Your task to perform on an android device: uninstall "Google Maps" Image 0: 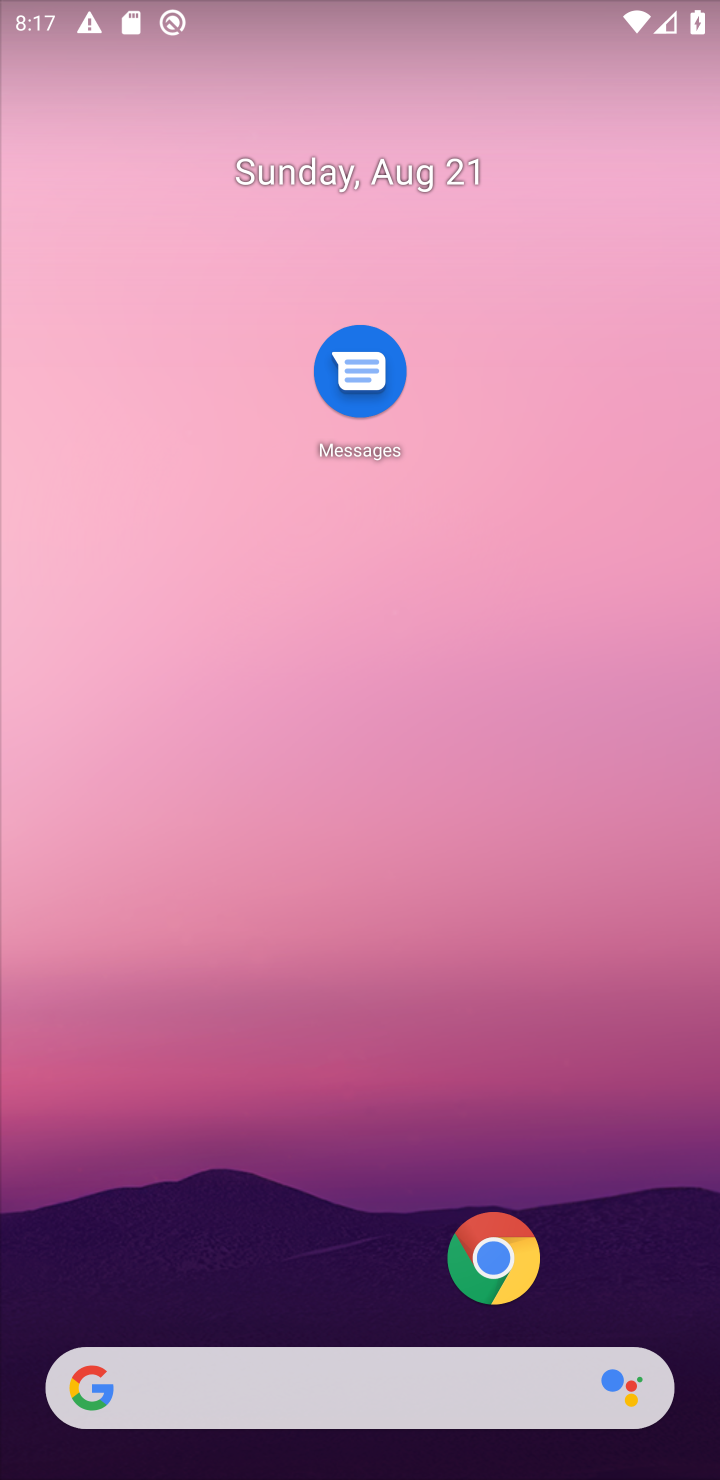
Step 0: drag from (300, 1233) to (459, 0)
Your task to perform on an android device: uninstall "Google Maps" Image 1: 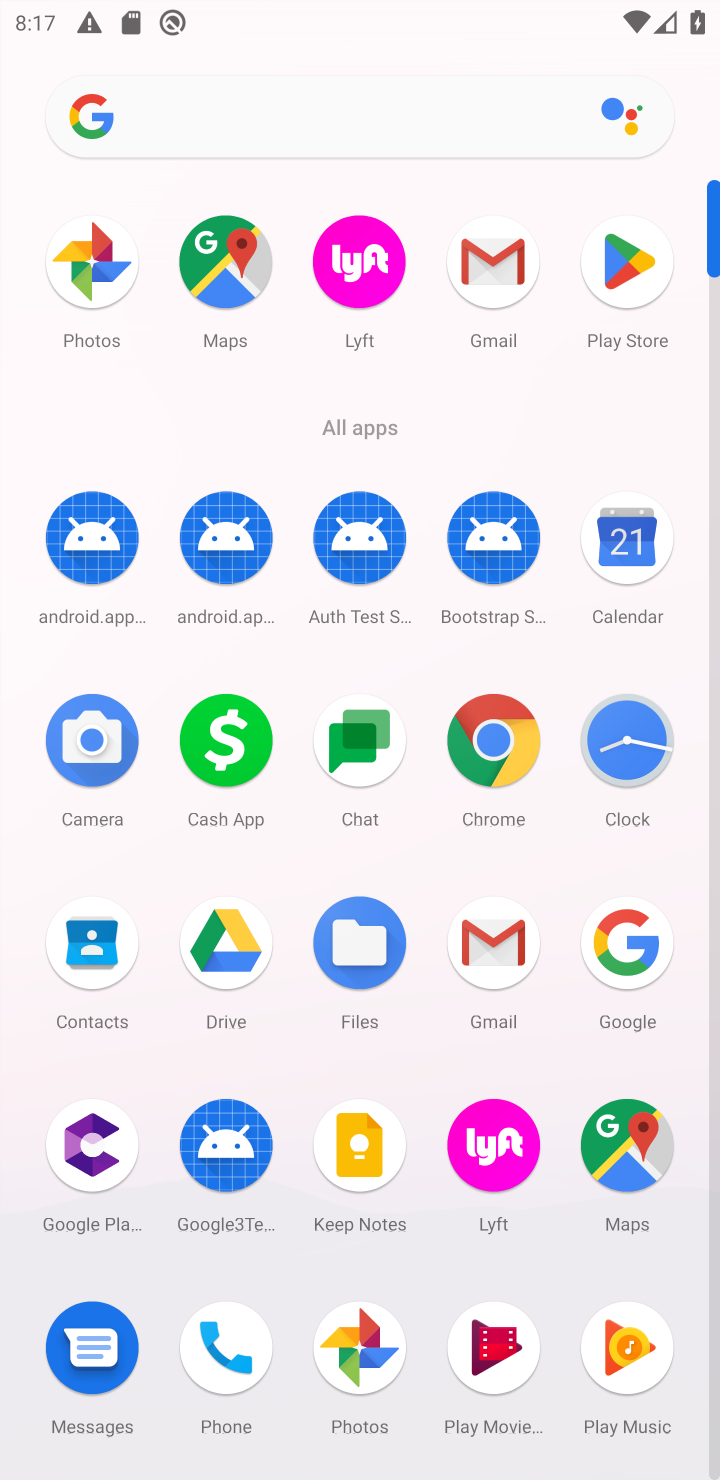
Step 1: click (658, 270)
Your task to perform on an android device: uninstall "Google Maps" Image 2: 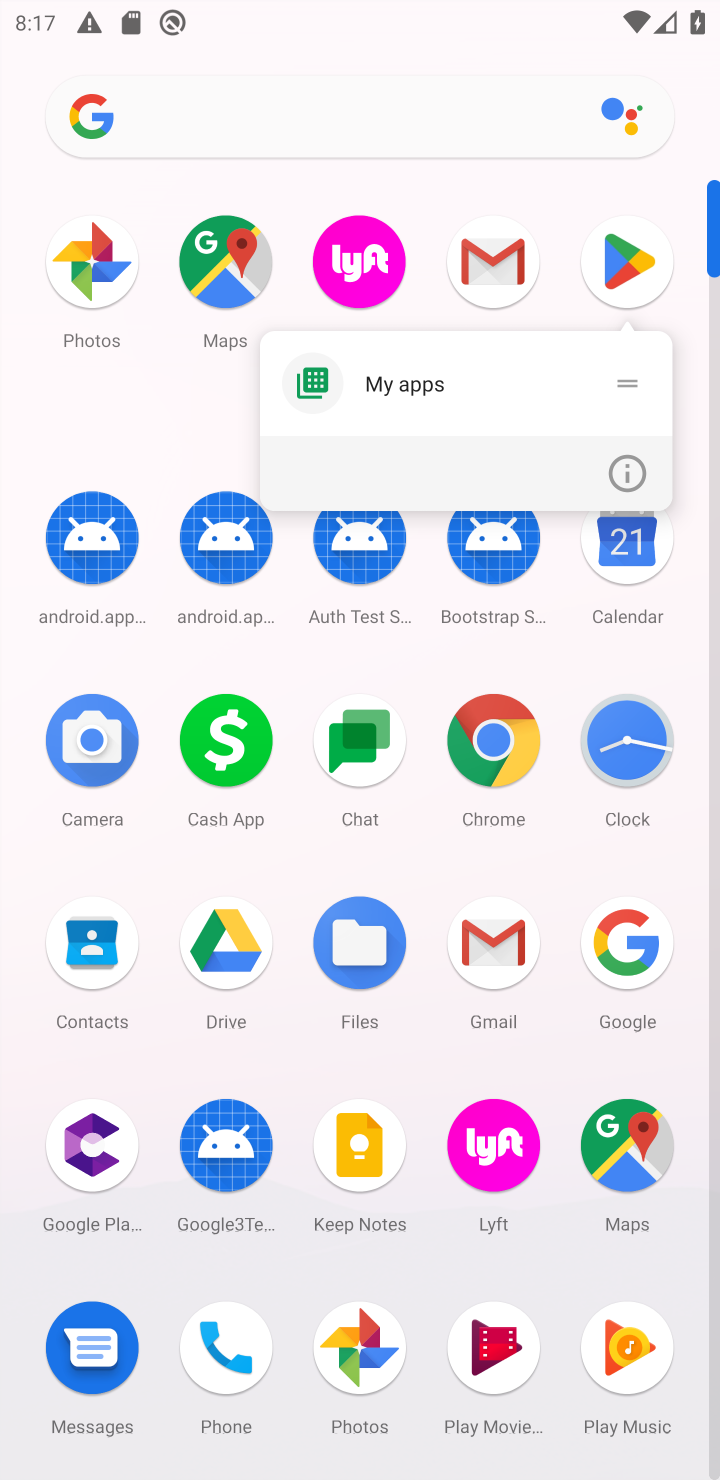
Step 2: click (658, 270)
Your task to perform on an android device: uninstall "Google Maps" Image 3: 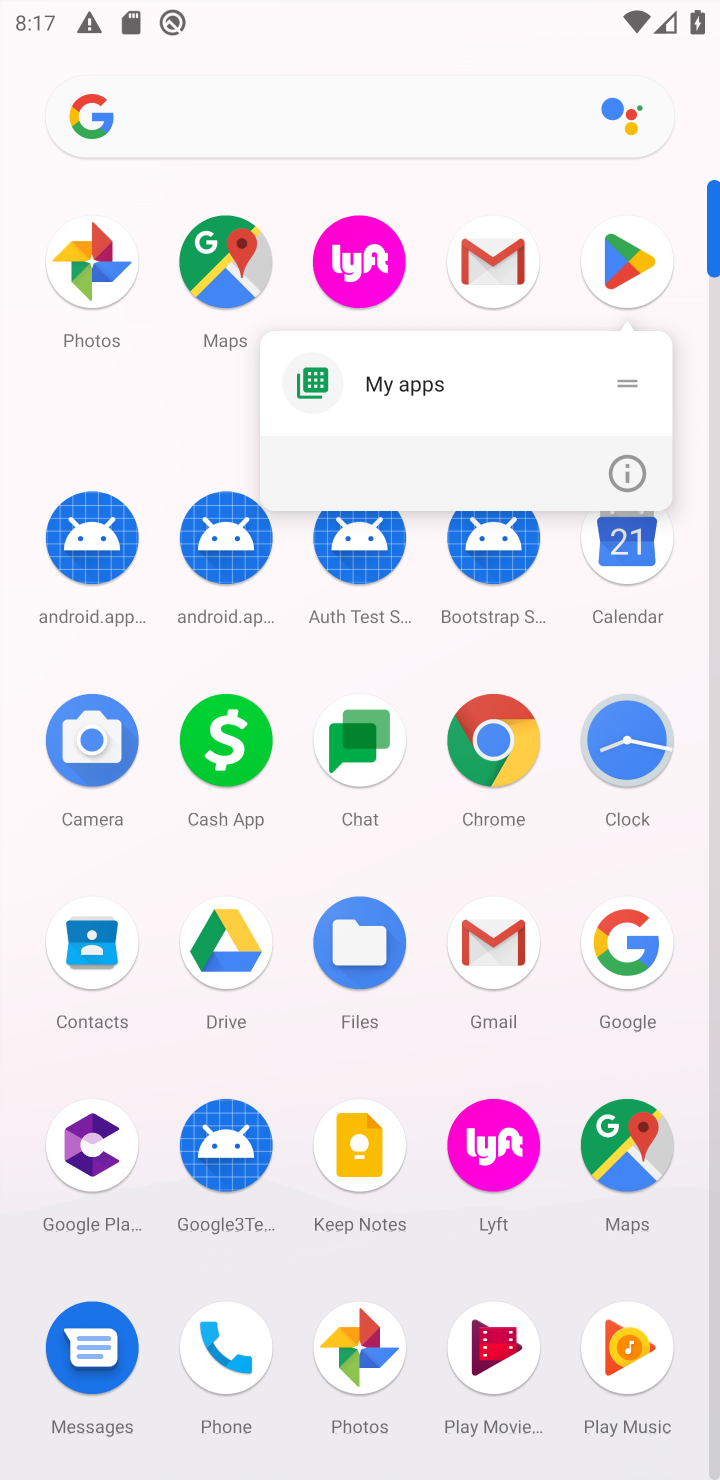
Step 3: click (631, 281)
Your task to perform on an android device: uninstall "Google Maps" Image 4: 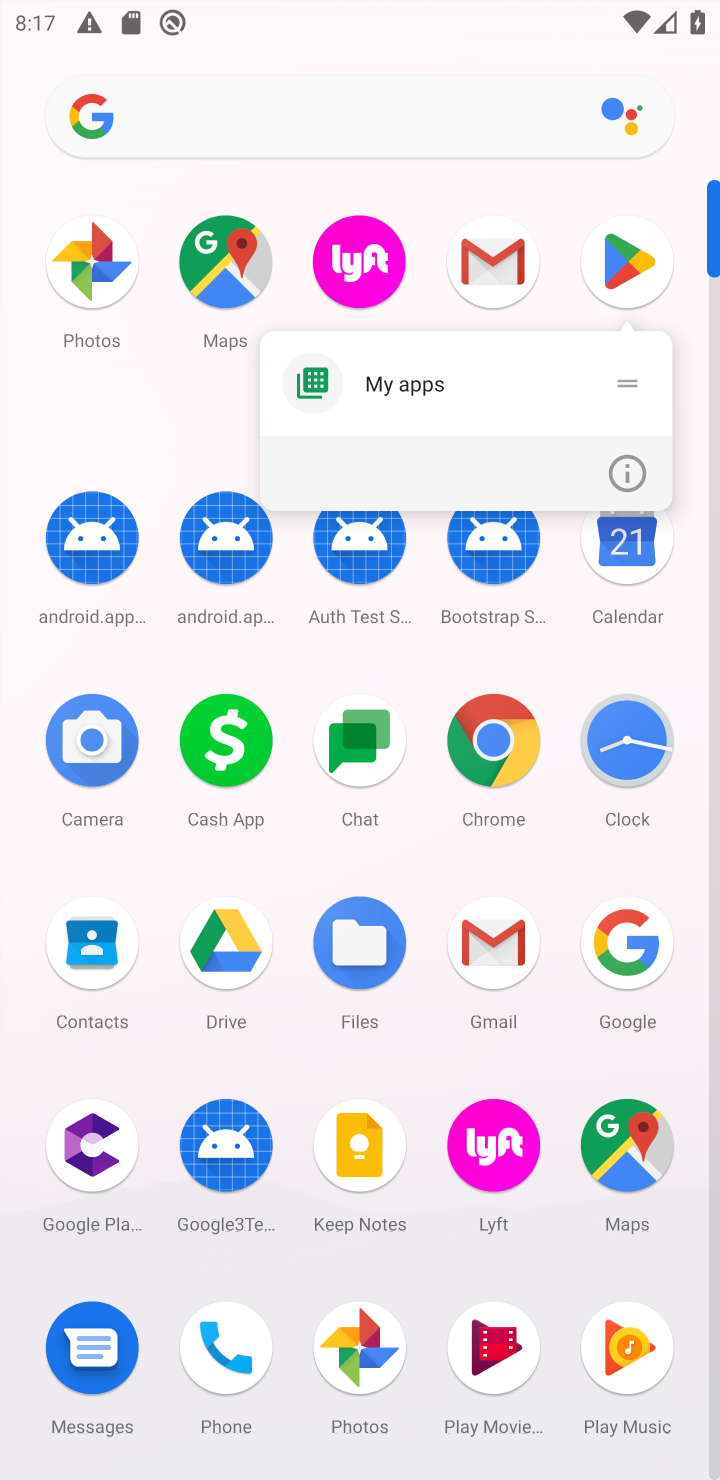
Step 4: click (628, 270)
Your task to perform on an android device: uninstall "Google Maps" Image 5: 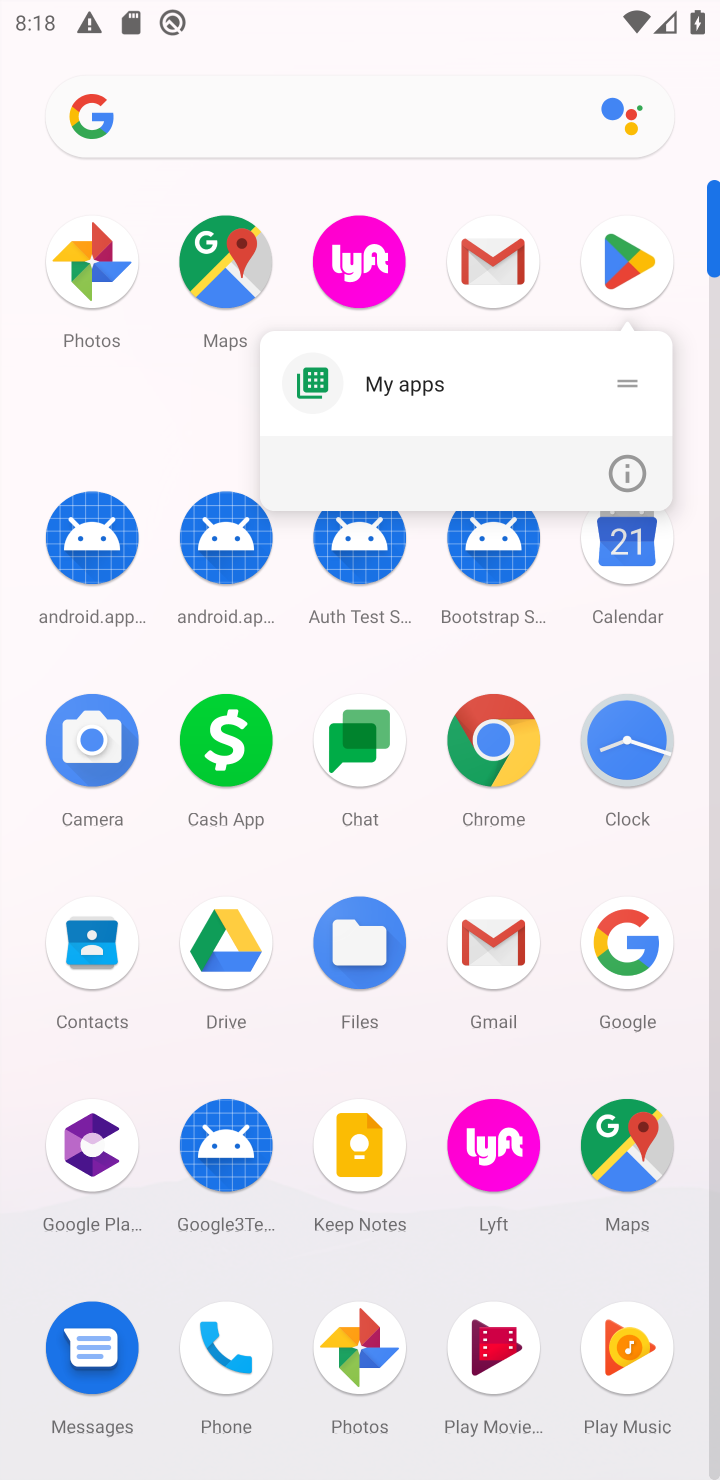
Step 5: click (628, 270)
Your task to perform on an android device: uninstall "Google Maps" Image 6: 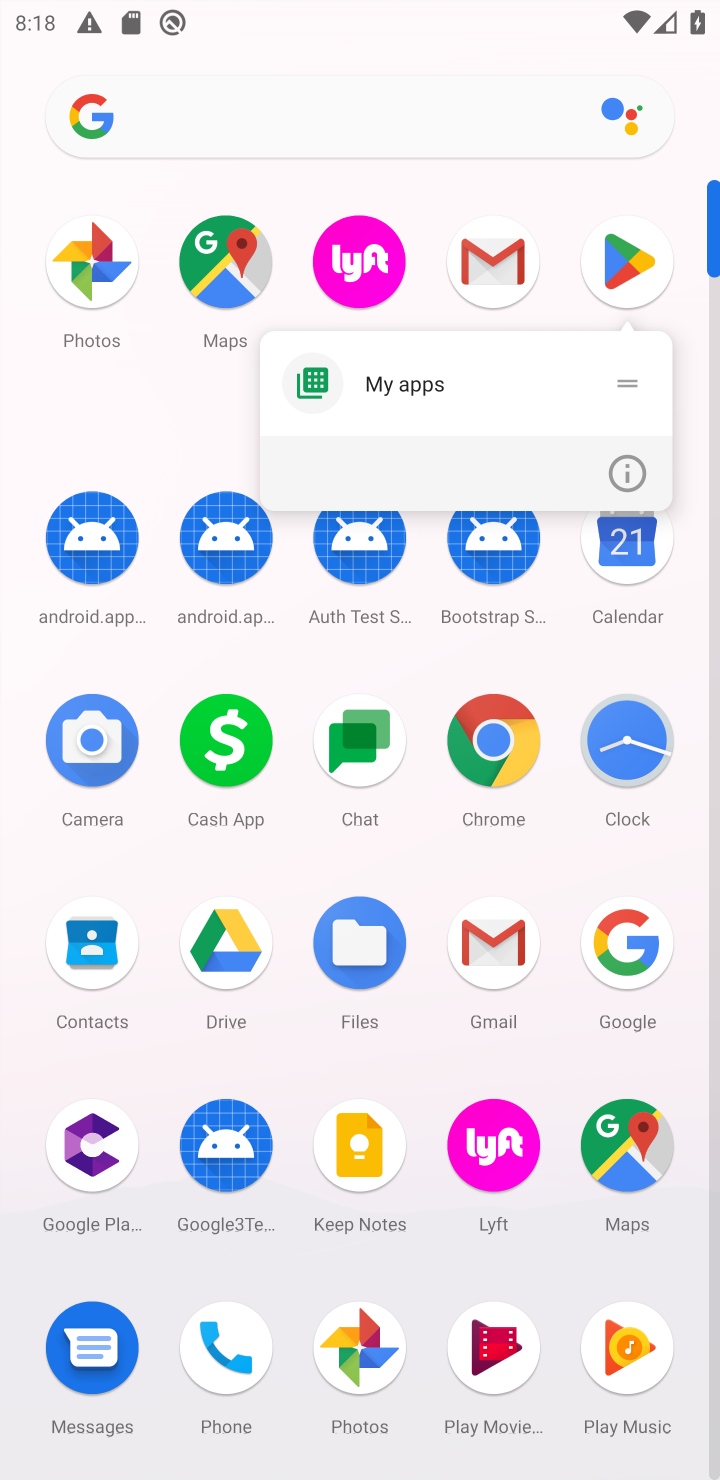
Step 6: click (628, 270)
Your task to perform on an android device: uninstall "Google Maps" Image 7: 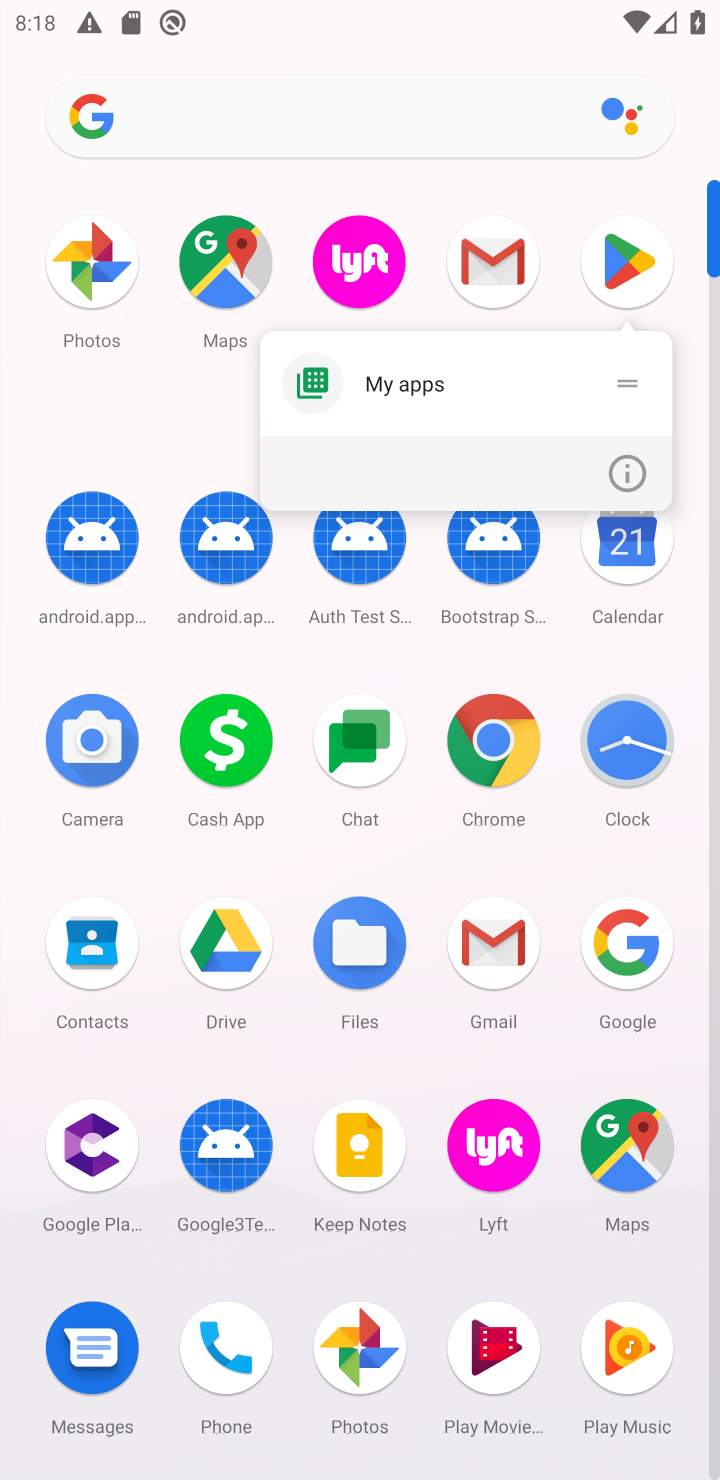
Step 7: click (628, 270)
Your task to perform on an android device: uninstall "Google Maps" Image 8: 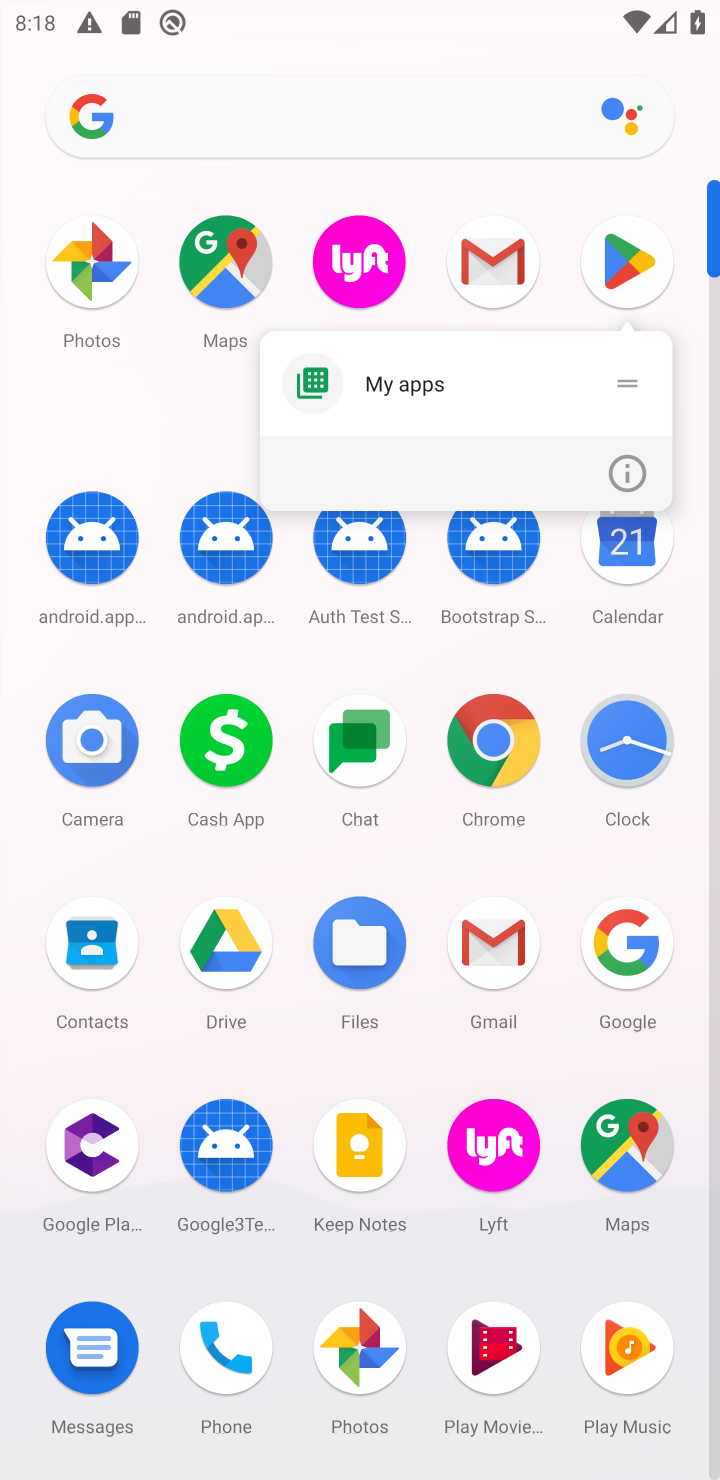
Step 8: click (628, 270)
Your task to perform on an android device: uninstall "Google Maps" Image 9: 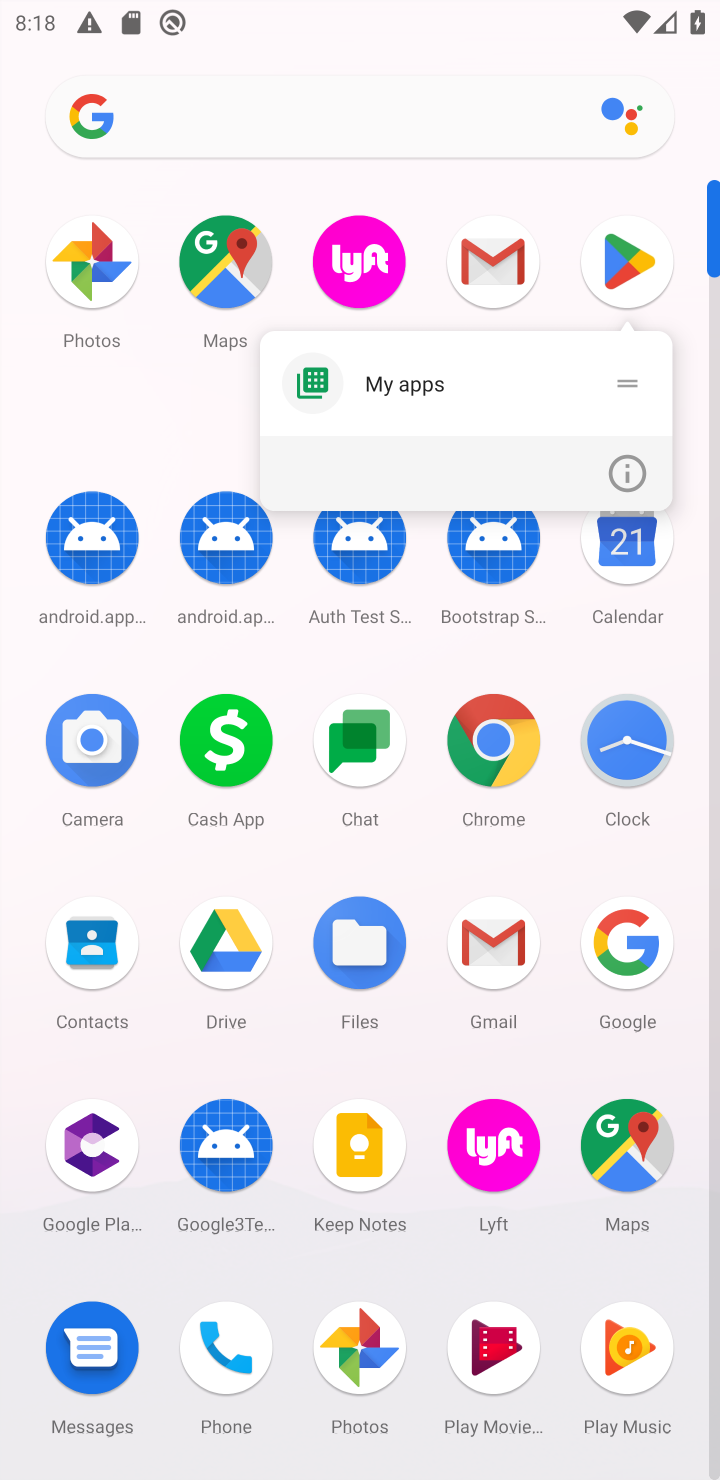
Step 9: click (628, 270)
Your task to perform on an android device: uninstall "Google Maps" Image 10: 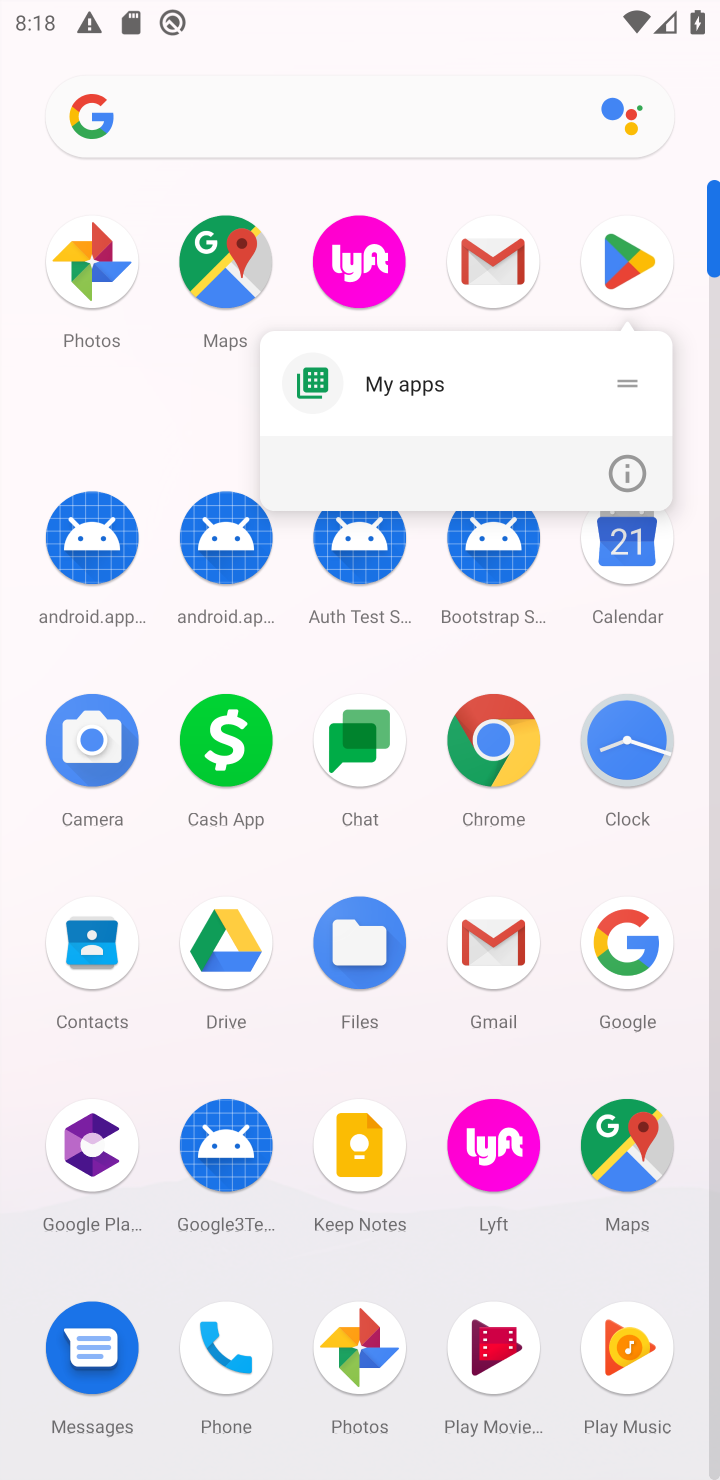
Step 10: click (628, 270)
Your task to perform on an android device: uninstall "Google Maps" Image 11: 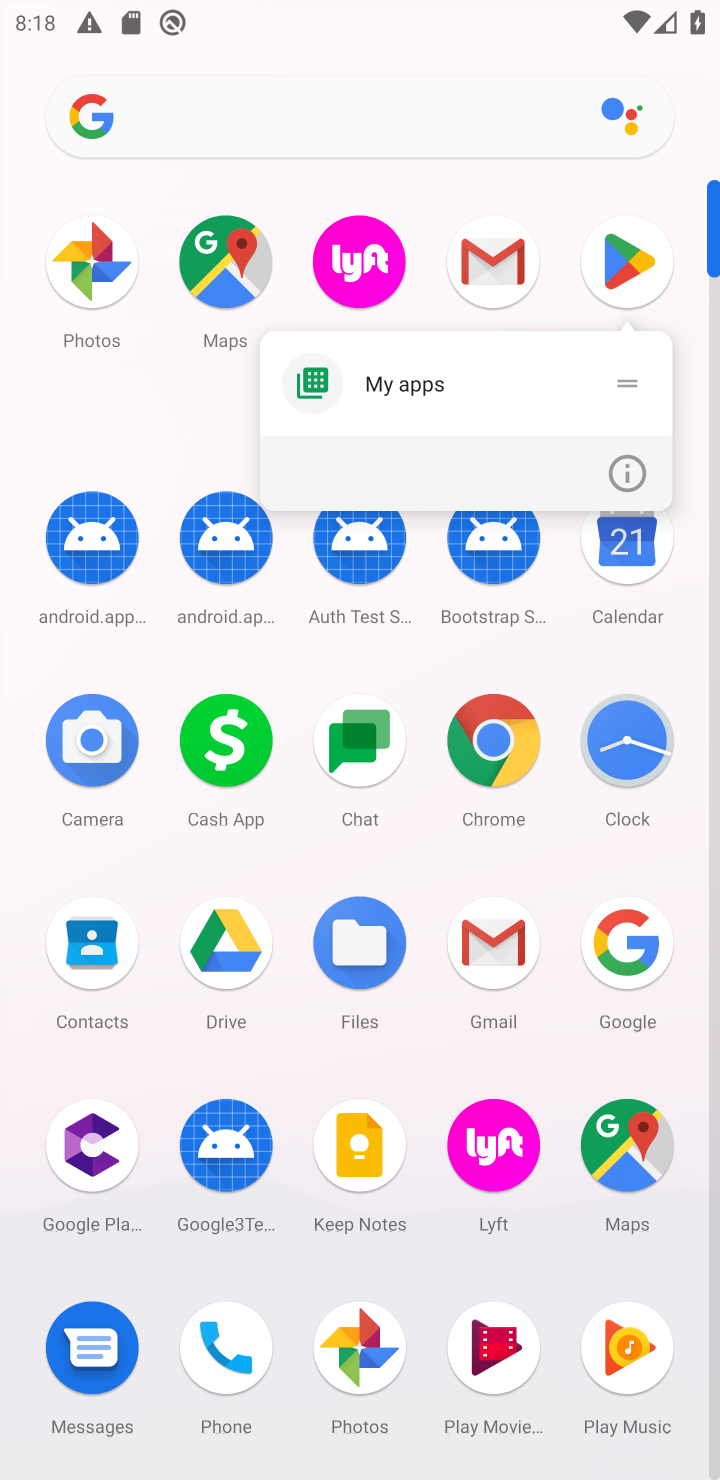
Step 11: click (628, 270)
Your task to perform on an android device: uninstall "Google Maps" Image 12: 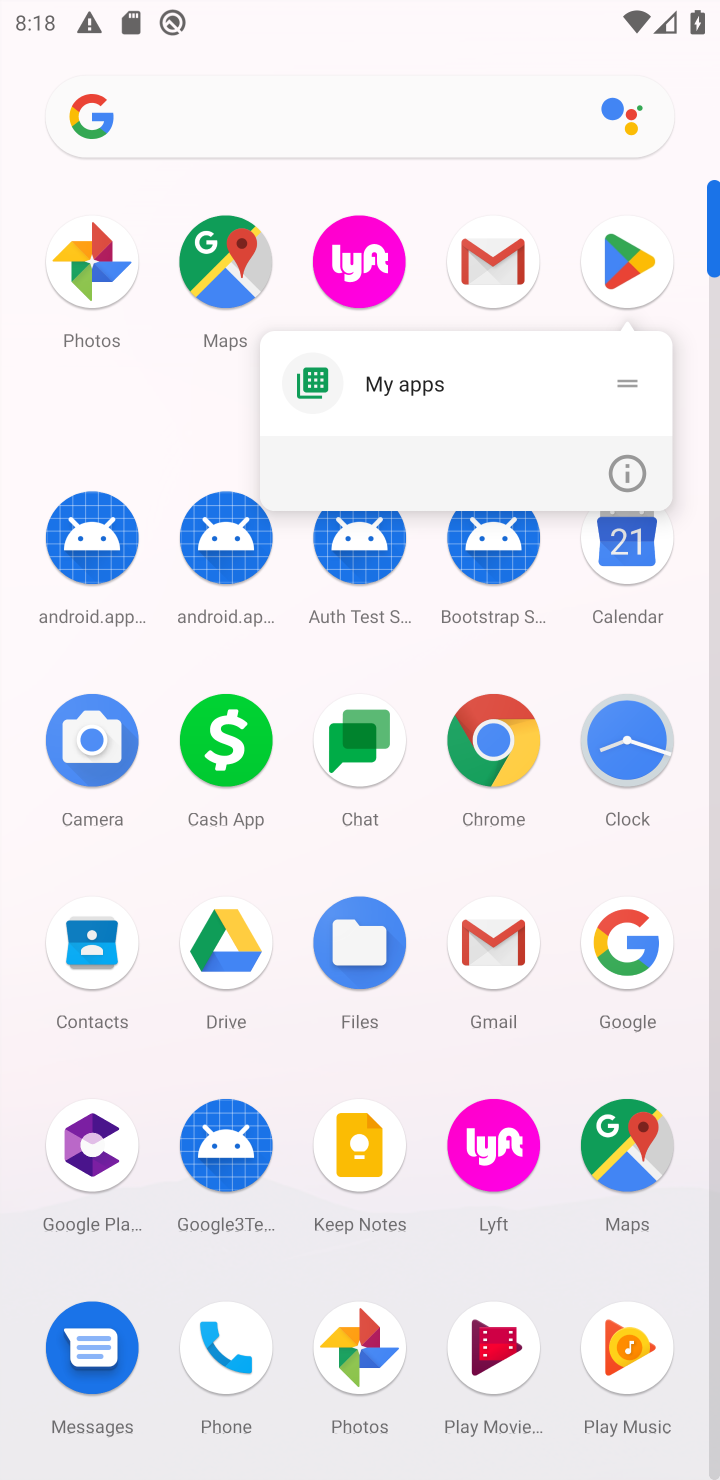
Step 12: click (628, 270)
Your task to perform on an android device: uninstall "Google Maps" Image 13: 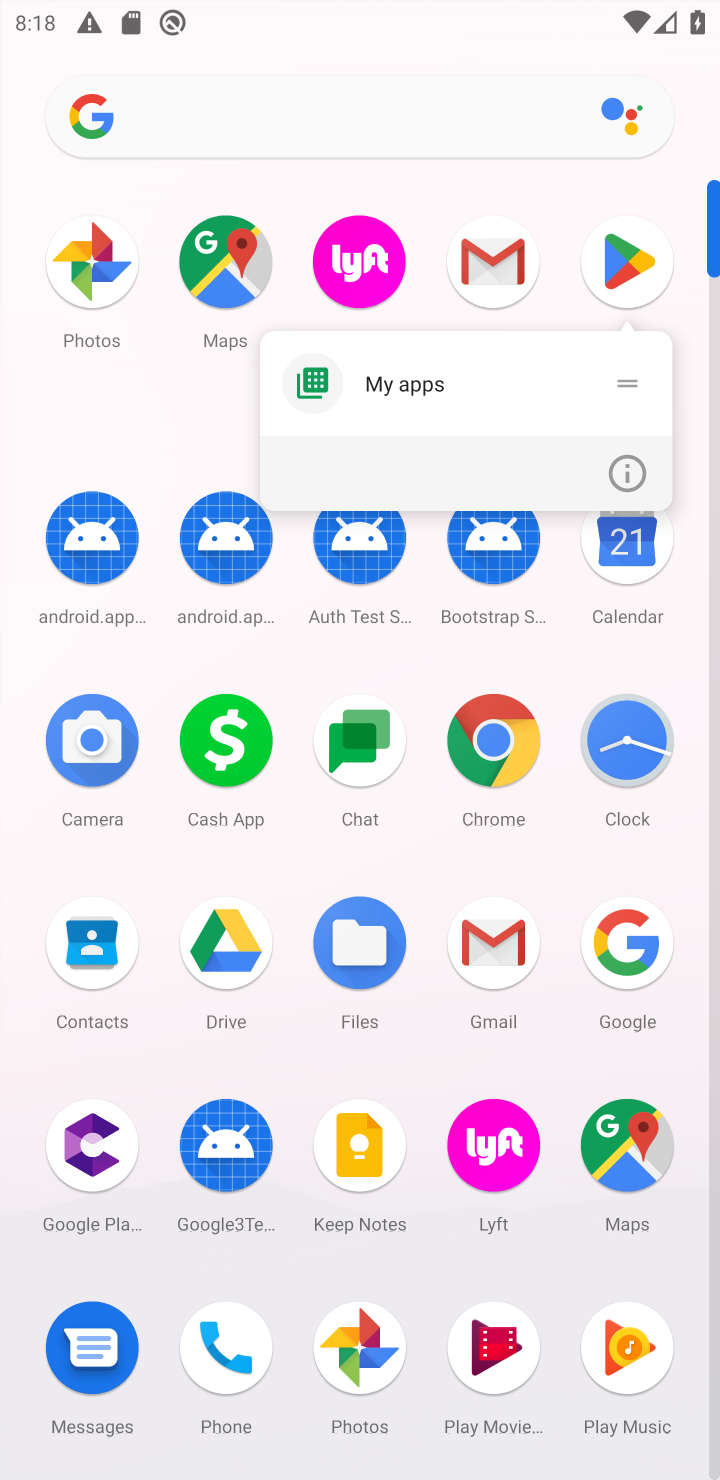
Step 13: click (628, 270)
Your task to perform on an android device: uninstall "Google Maps" Image 14: 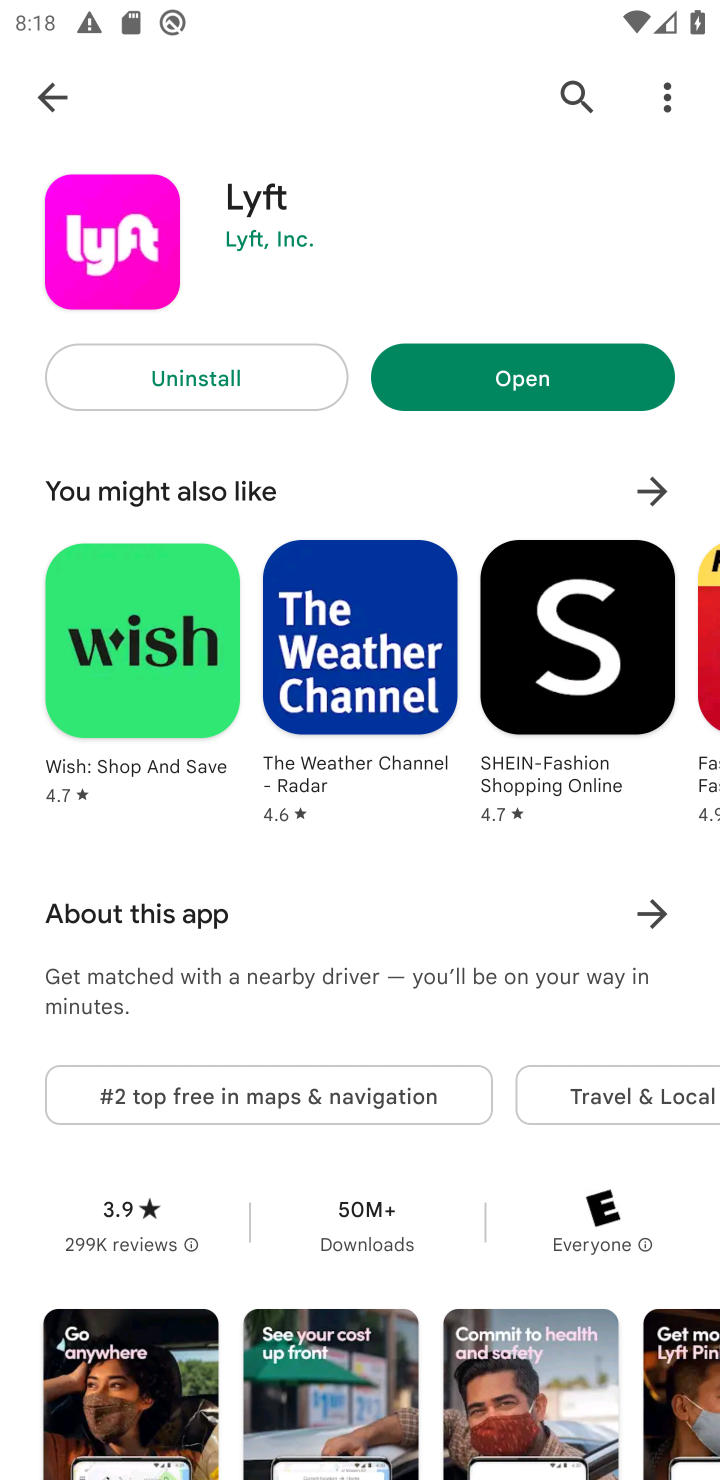
Step 14: press back button
Your task to perform on an android device: uninstall "Google Maps" Image 15: 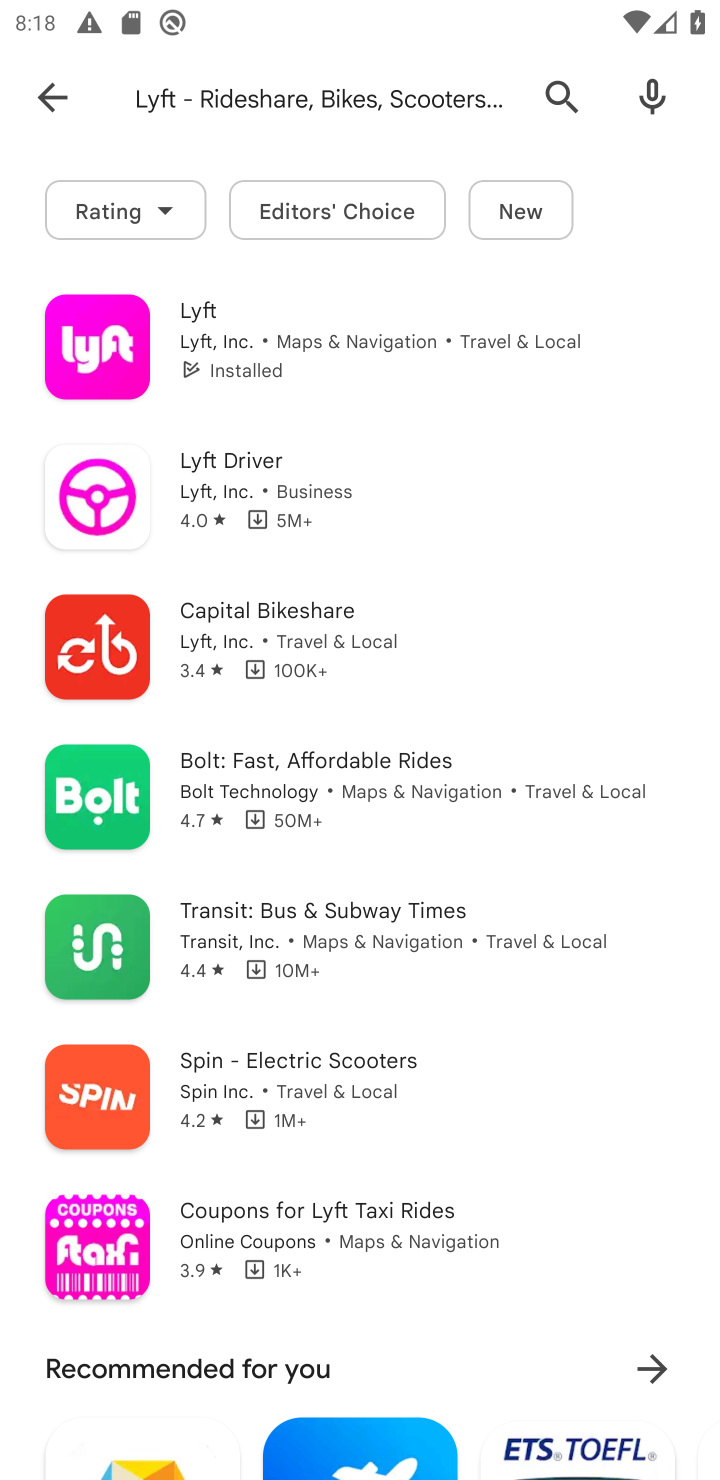
Step 15: press back button
Your task to perform on an android device: uninstall "Google Maps" Image 16: 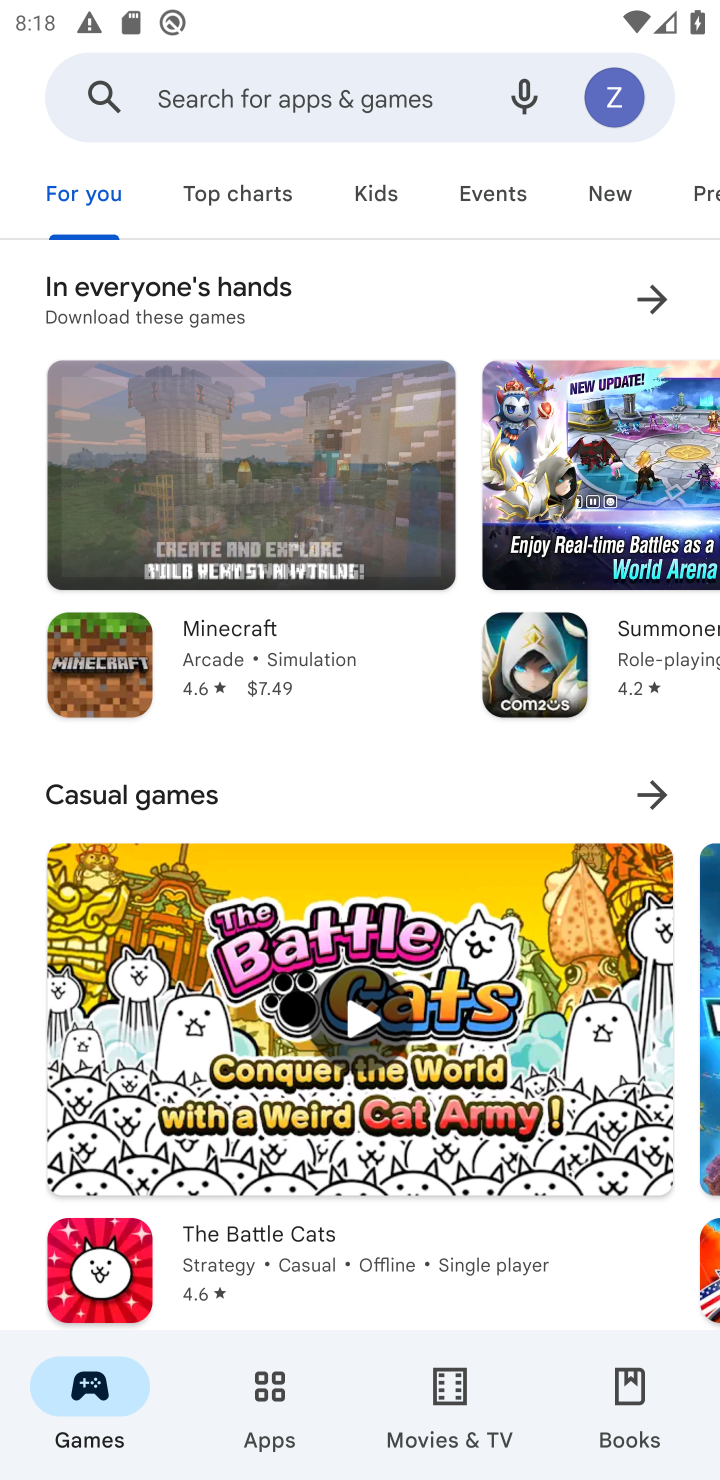
Step 16: click (189, 124)
Your task to perform on an android device: uninstall "Google Maps" Image 17: 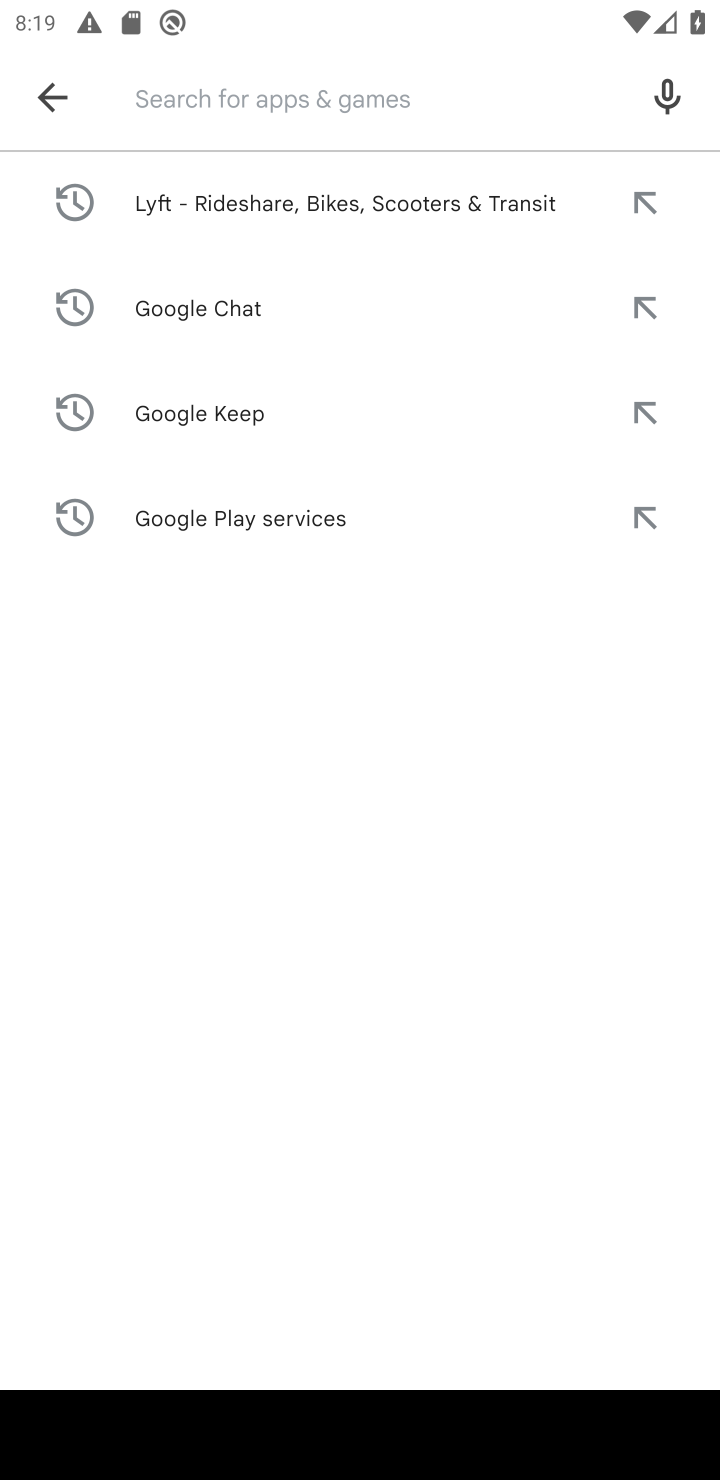
Step 17: type "Google Maps""
Your task to perform on an android device: uninstall "Google Maps" Image 18: 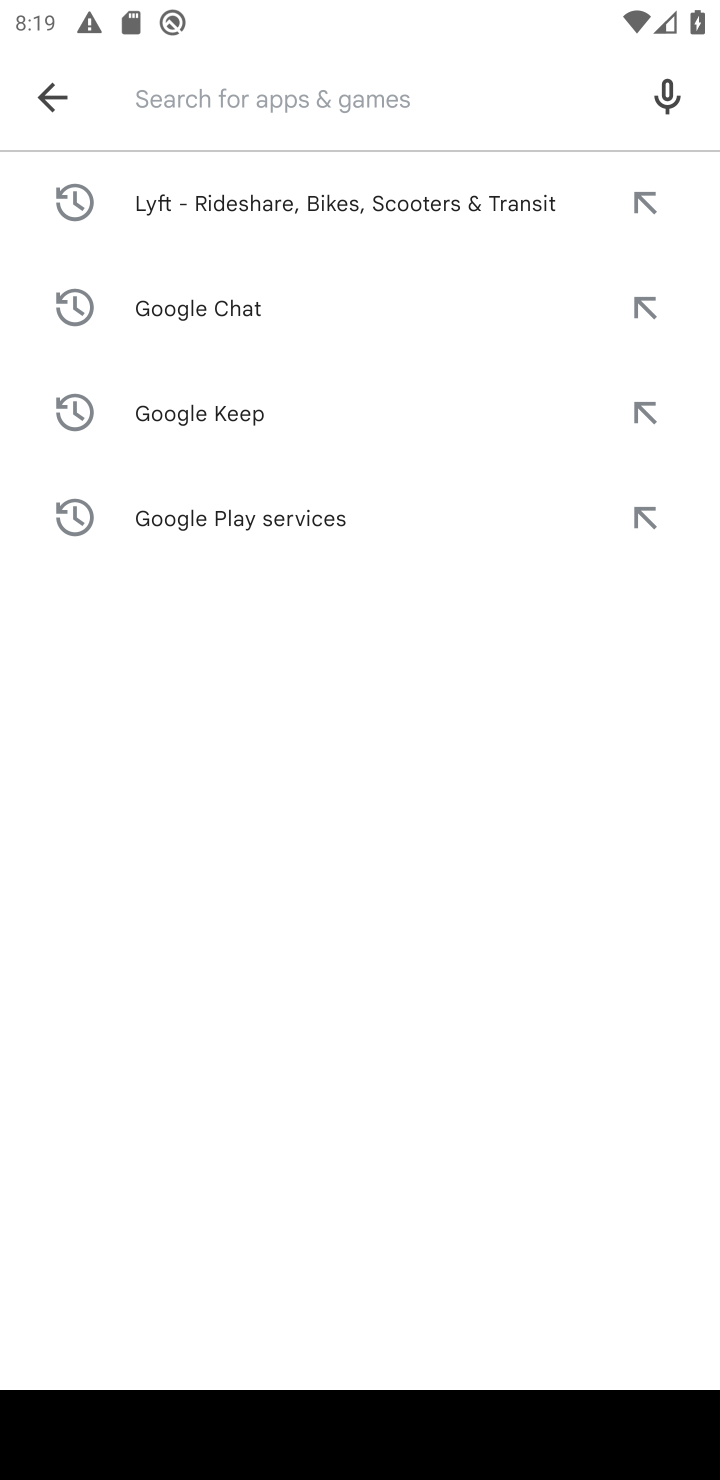
Step 18: press enter
Your task to perform on an android device: uninstall "Google Maps" Image 19: 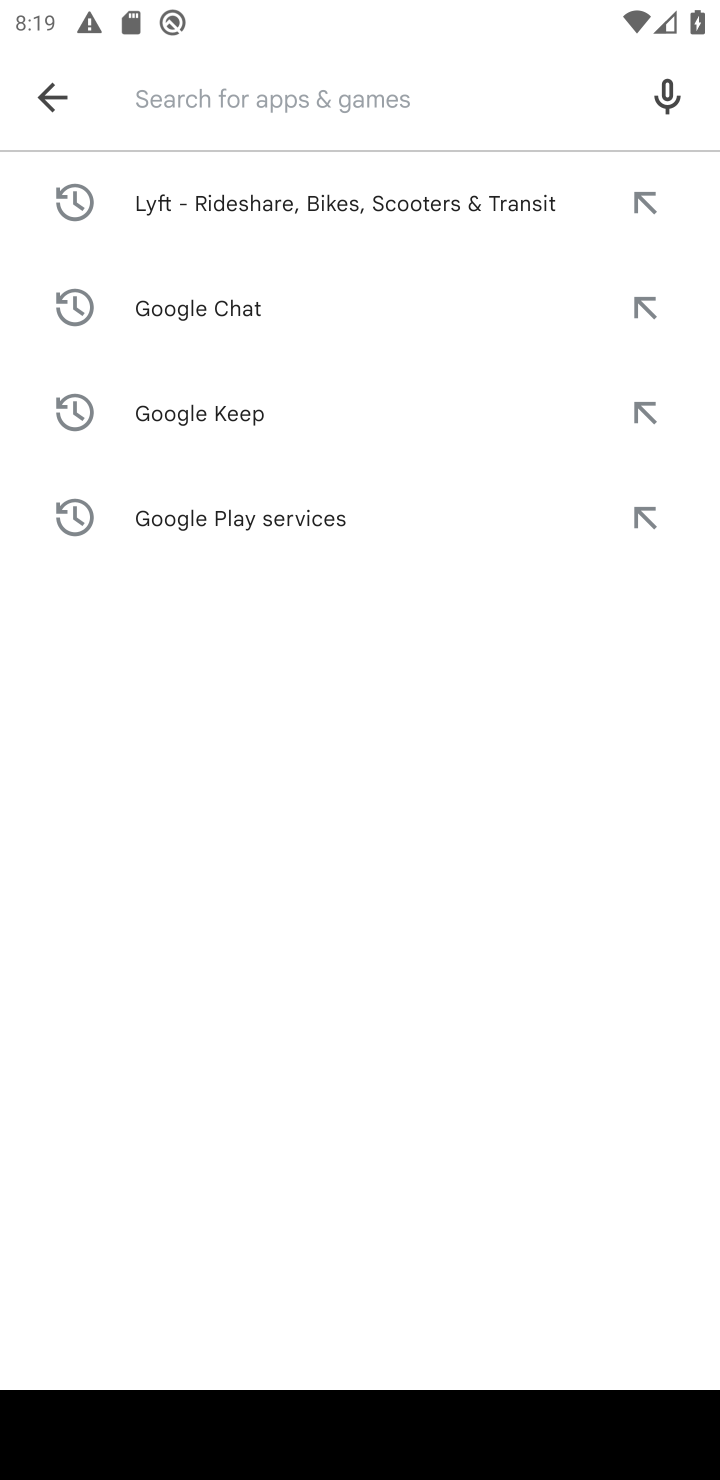
Step 19: type "Google Maps"
Your task to perform on an android device: uninstall "Google Maps" Image 20: 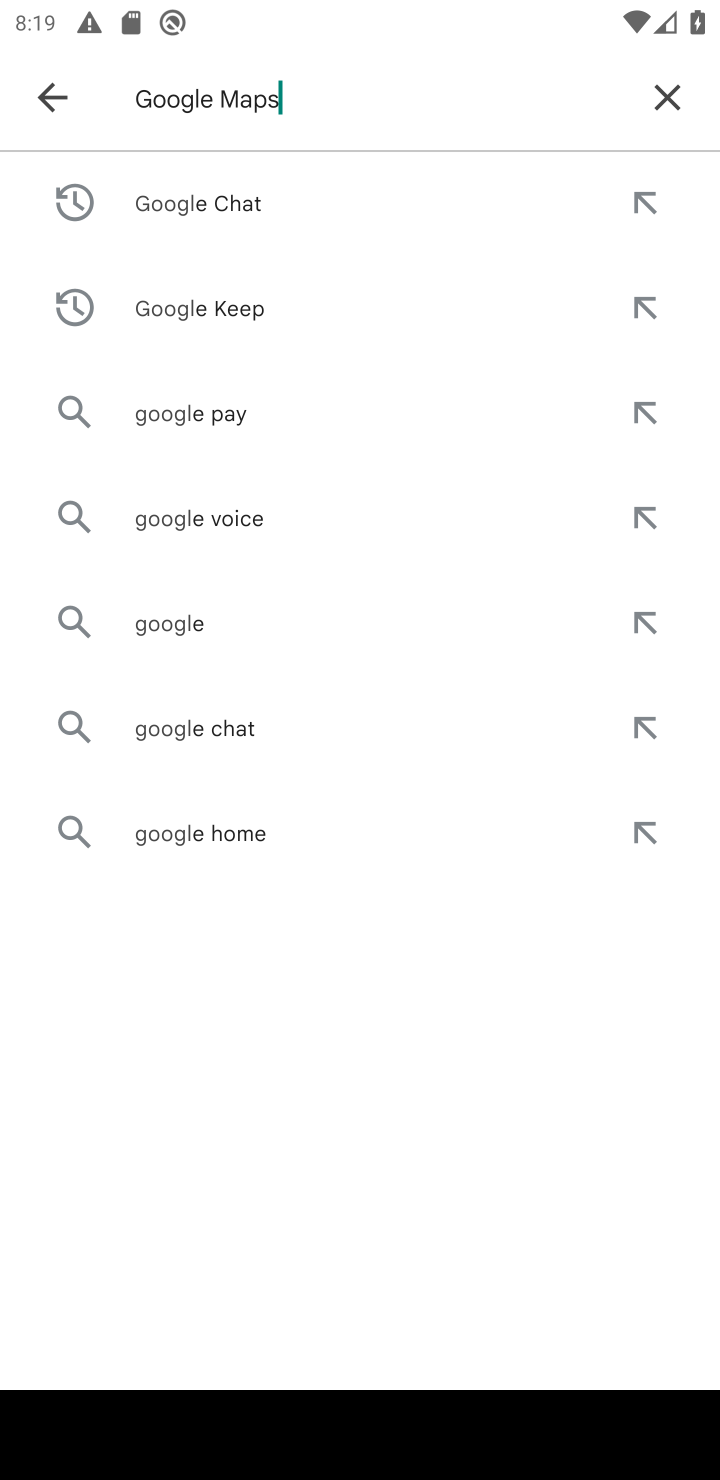
Step 20: press enter
Your task to perform on an android device: uninstall "Google Maps" Image 21: 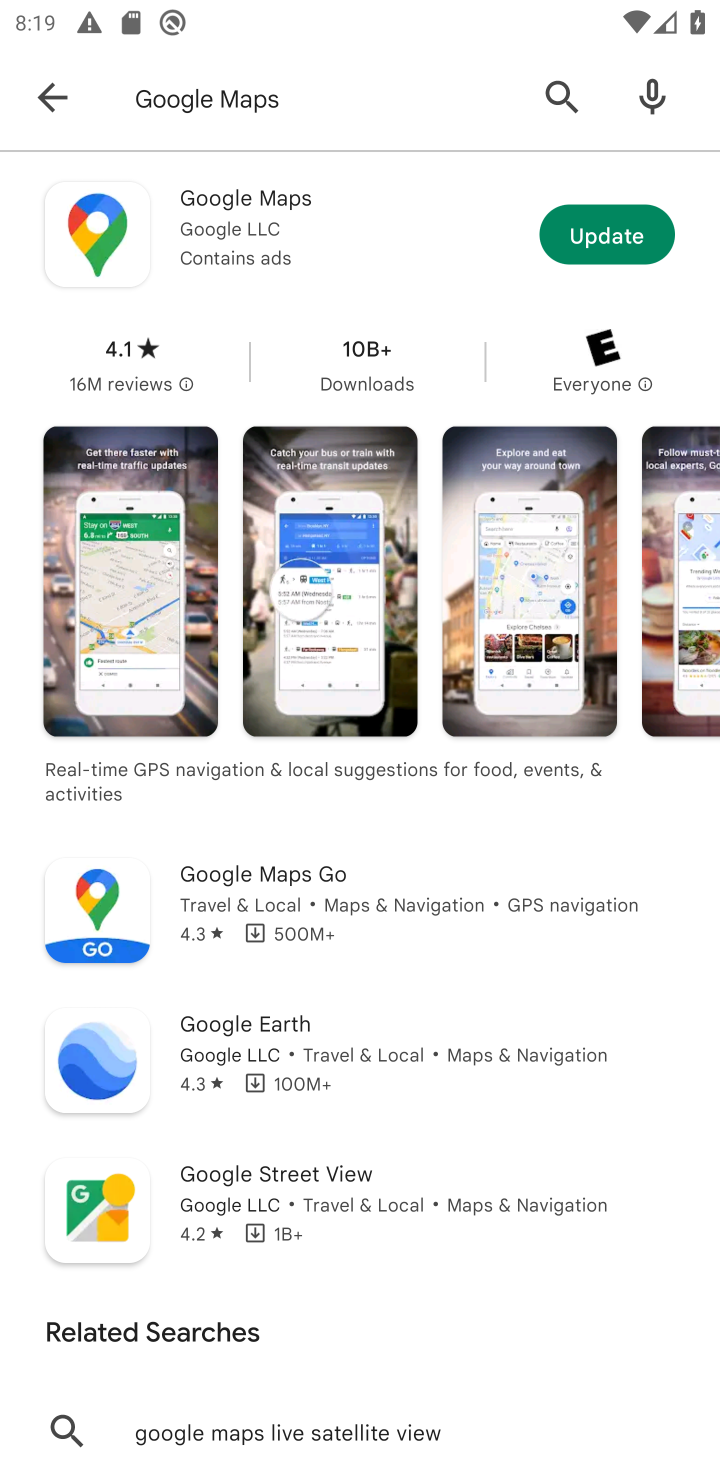
Step 21: click (344, 215)
Your task to perform on an android device: uninstall "Google Maps" Image 22: 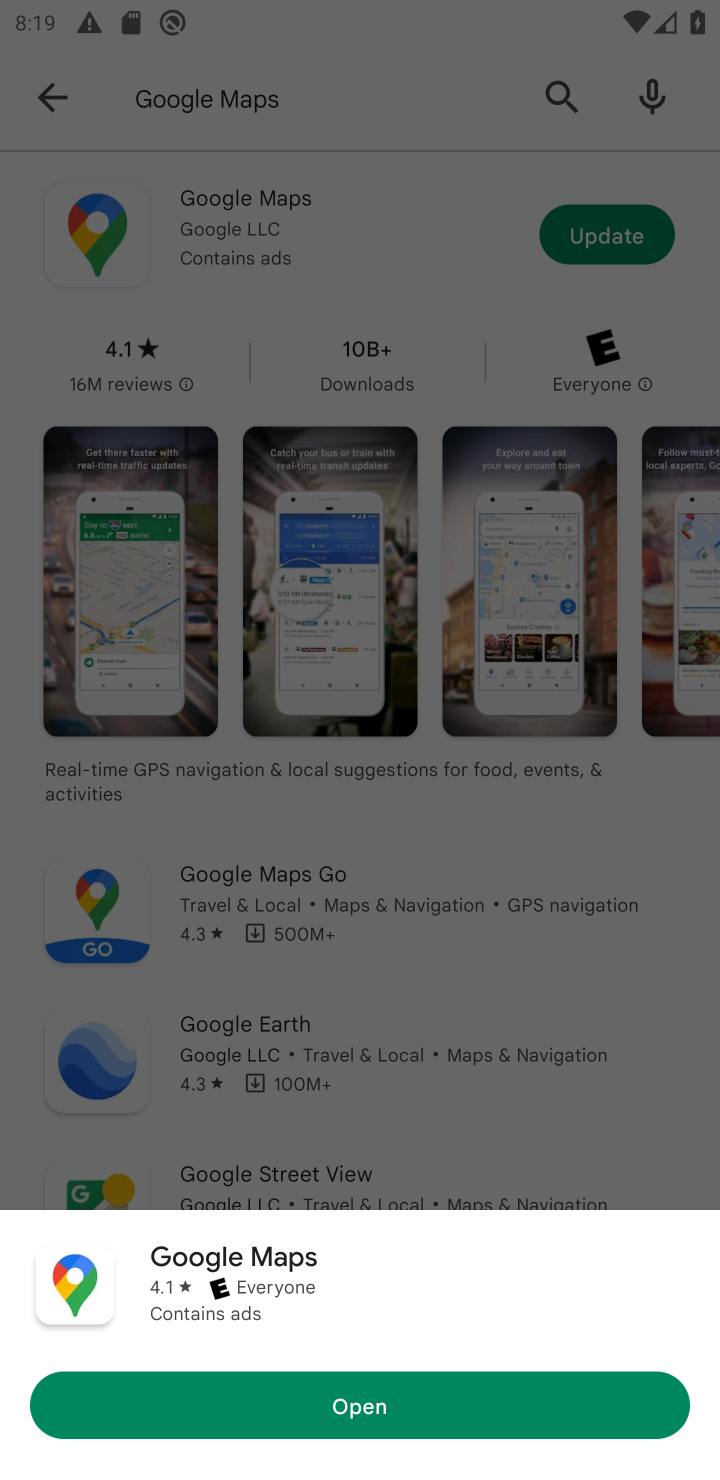
Step 22: click (269, 128)
Your task to perform on an android device: uninstall "Google Maps" Image 23: 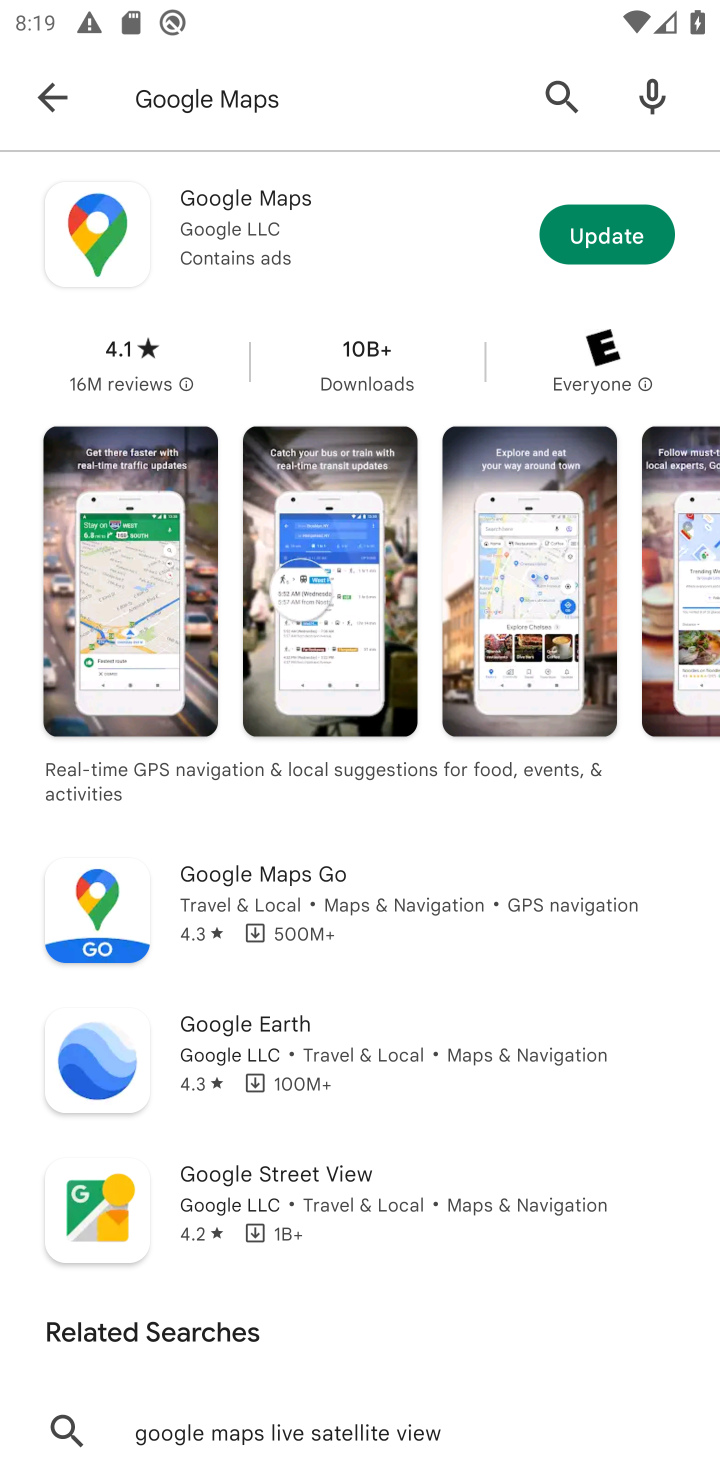
Step 23: click (80, 243)
Your task to perform on an android device: uninstall "Google Maps" Image 24: 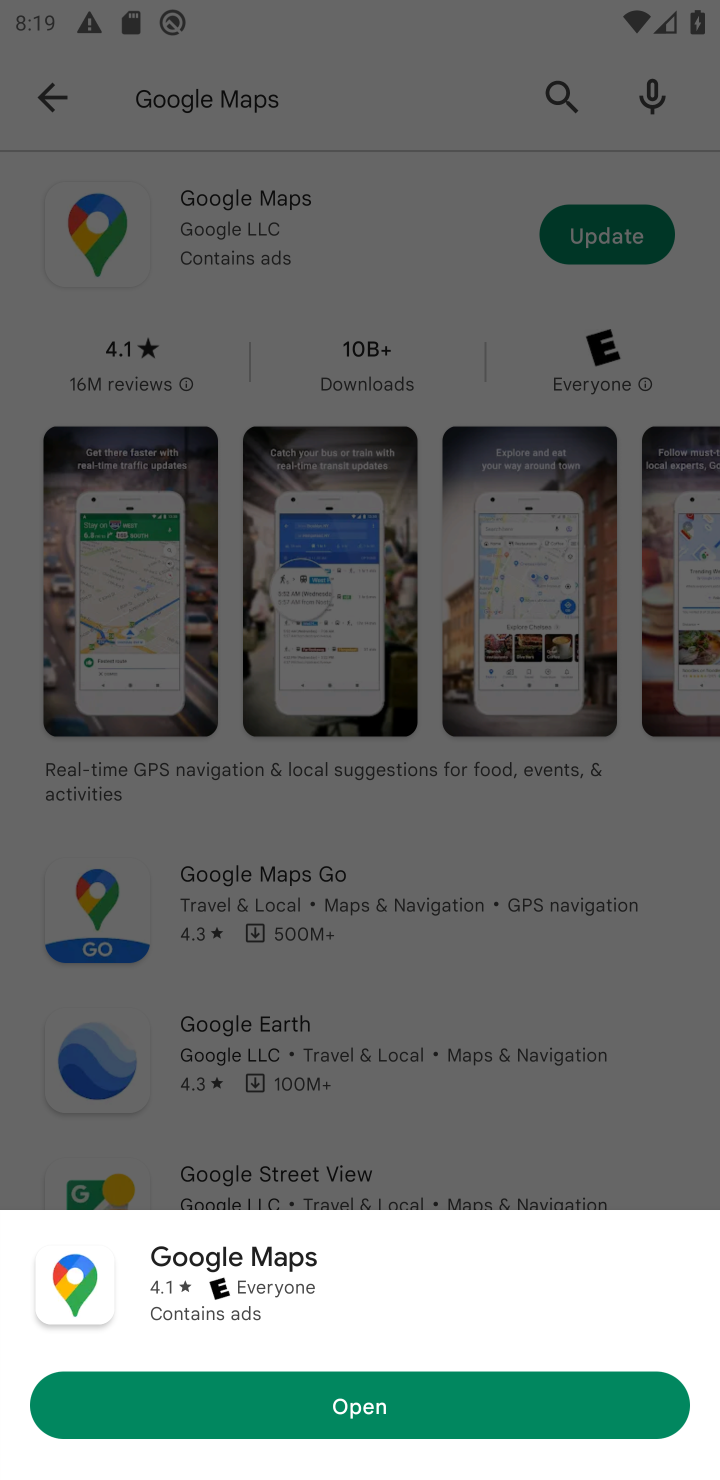
Step 24: click (406, 1414)
Your task to perform on an android device: uninstall "Google Maps" Image 25: 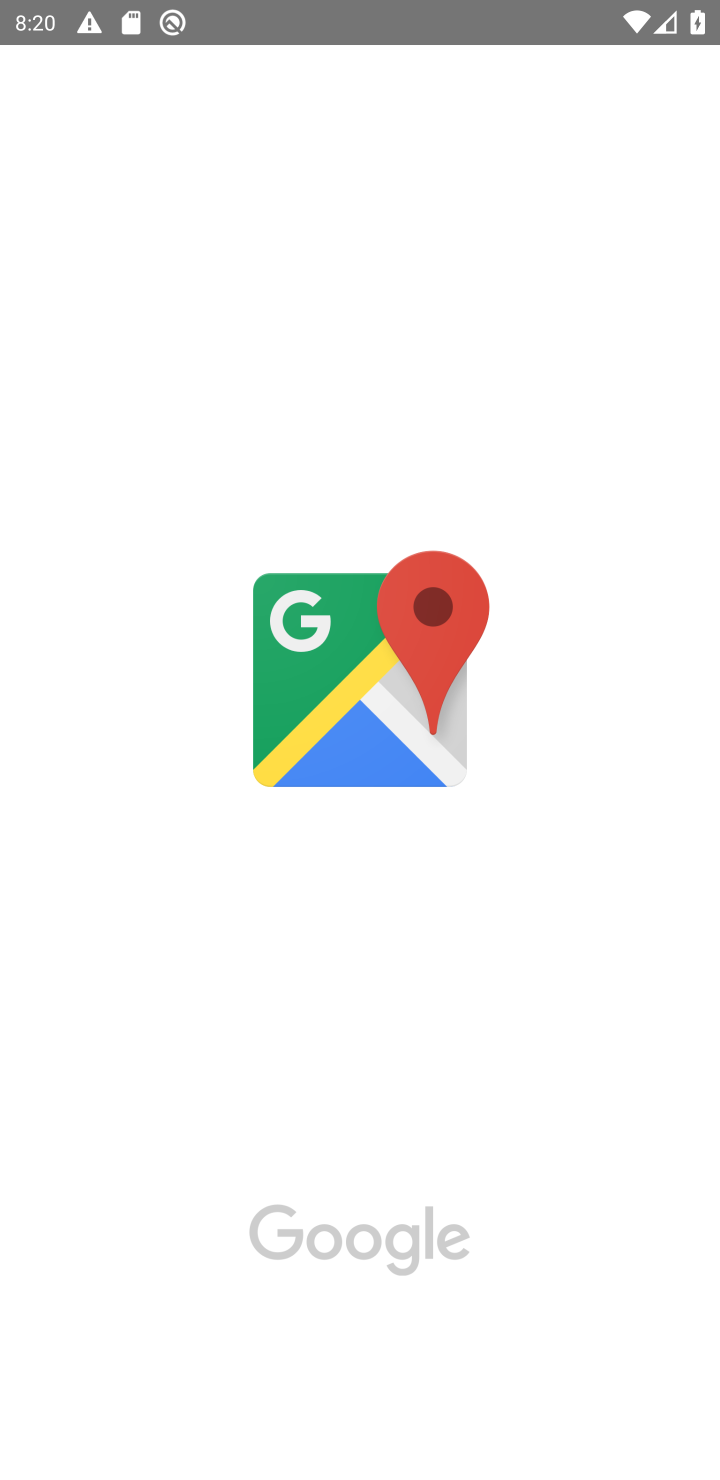
Step 25: press back button
Your task to perform on an android device: uninstall "Google Maps" Image 26: 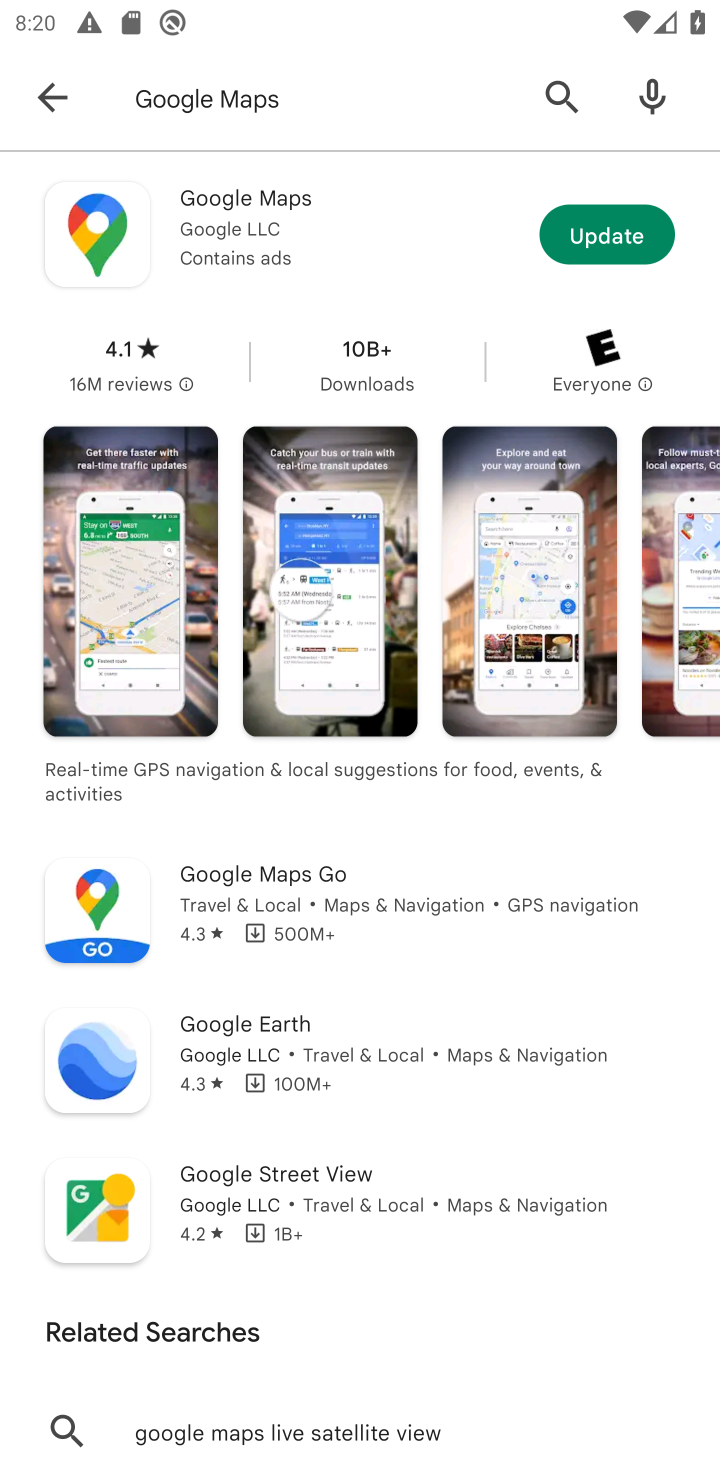
Step 26: click (149, 204)
Your task to perform on an android device: uninstall "Google Maps" Image 27: 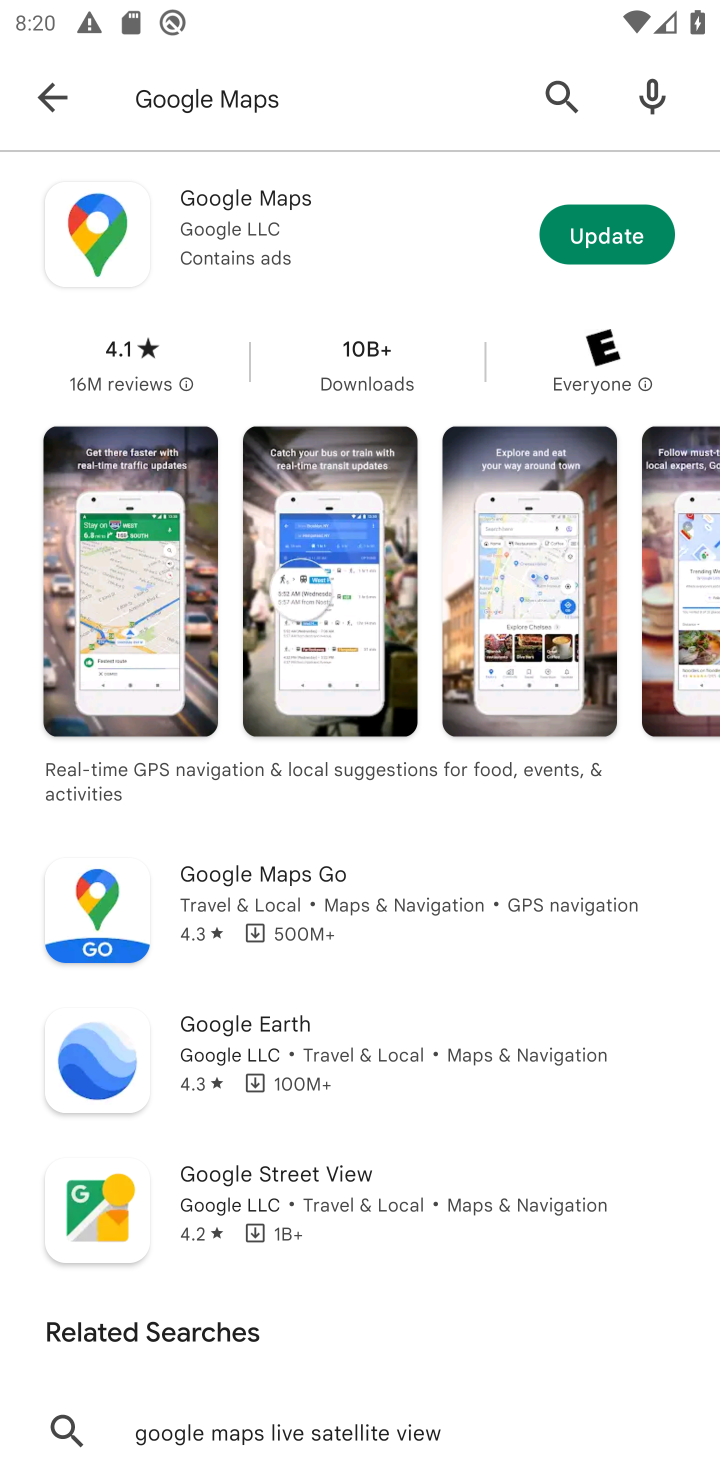
Step 27: click (313, 251)
Your task to perform on an android device: uninstall "Google Maps" Image 28: 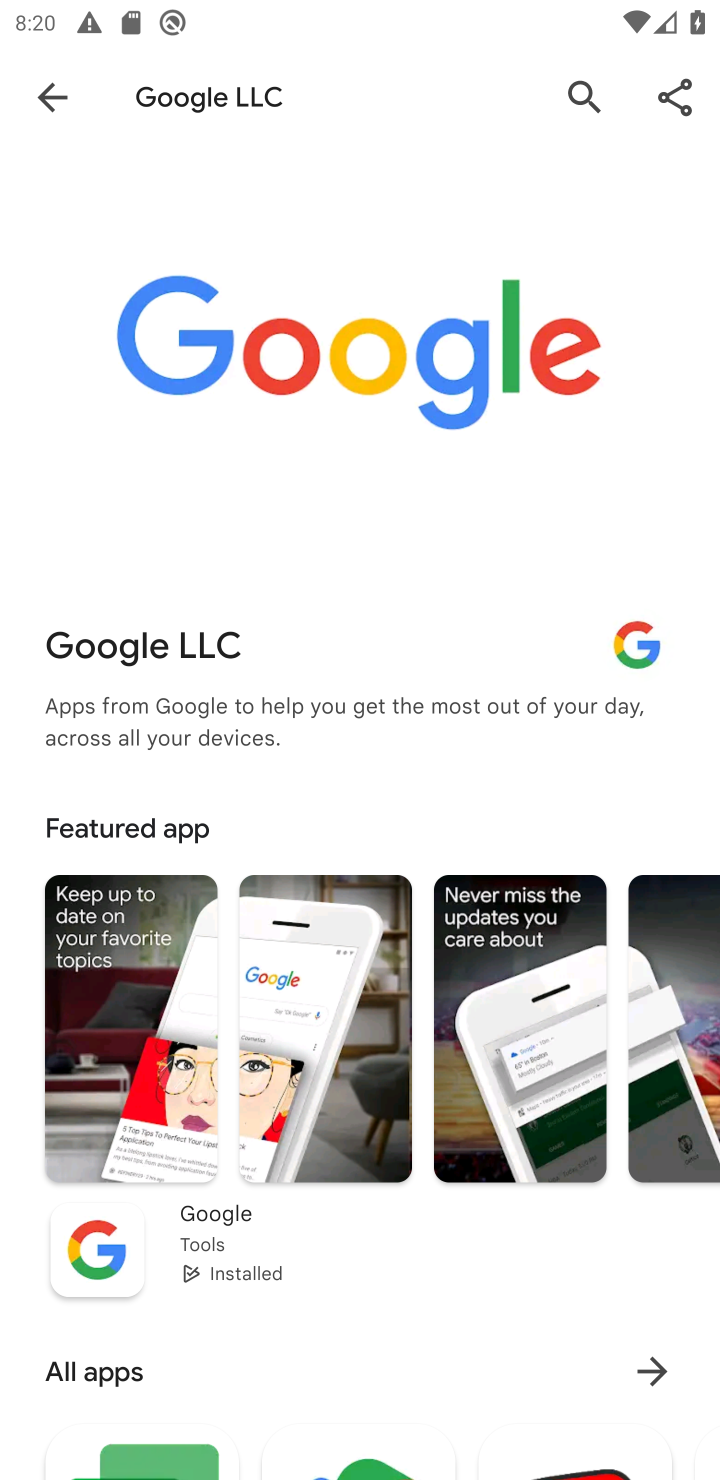
Step 28: task complete